Your task to perform on an android device: show emergency info Image 0: 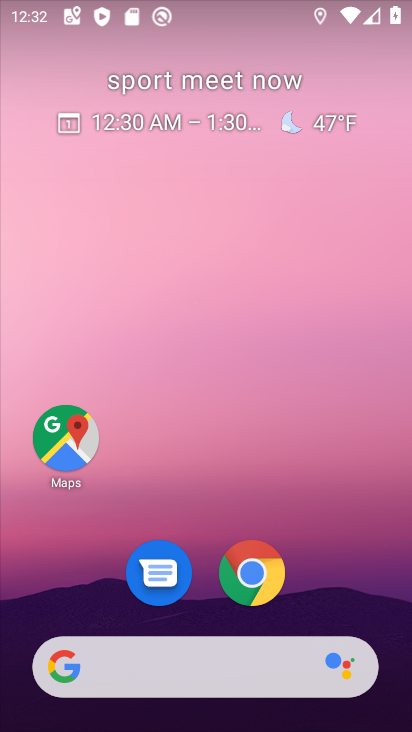
Step 0: click (168, 224)
Your task to perform on an android device: show emergency info Image 1: 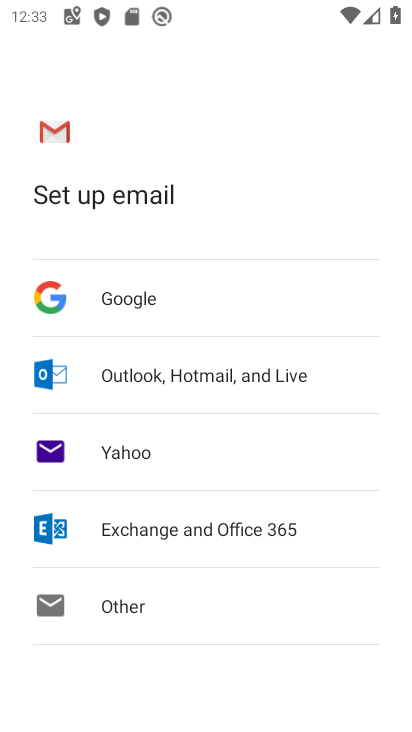
Step 1: drag from (215, 627) to (313, 88)
Your task to perform on an android device: show emergency info Image 2: 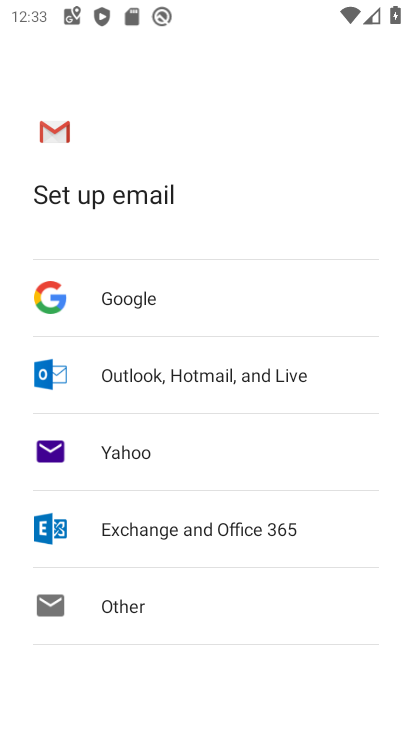
Step 2: press home button
Your task to perform on an android device: show emergency info Image 3: 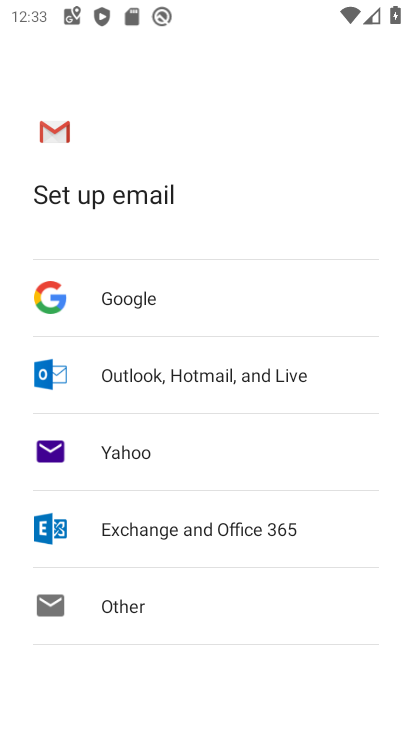
Step 3: press home button
Your task to perform on an android device: show emergency info Image 4: 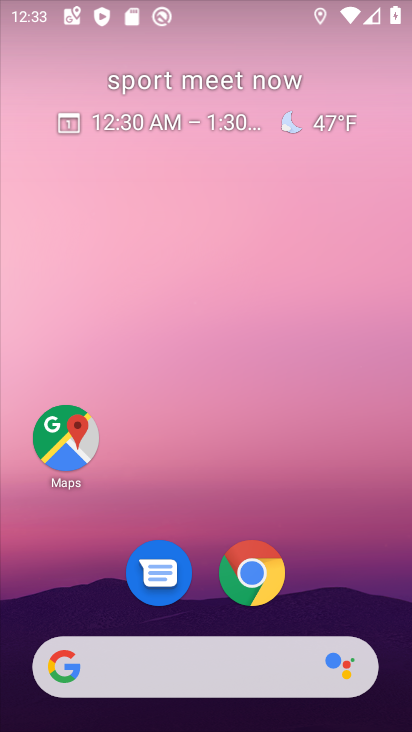
Step 4: drag from (165, 689) to (260, 94)
Your task to perform on an android device: show emergency info Image 5: 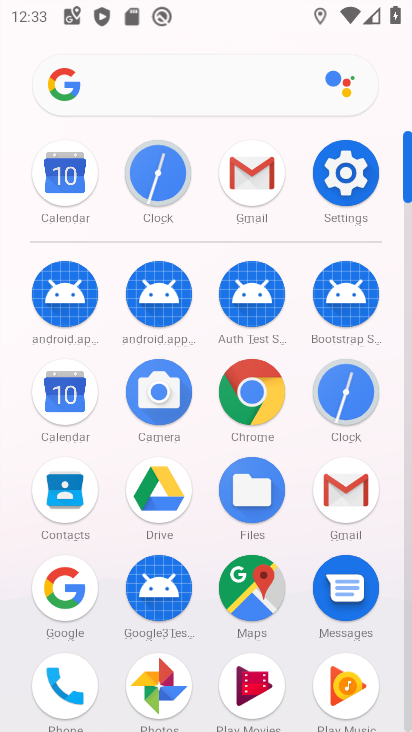
Step 5: click (335, 171)
Your task to perform on an android device: show emergency info Image 6: 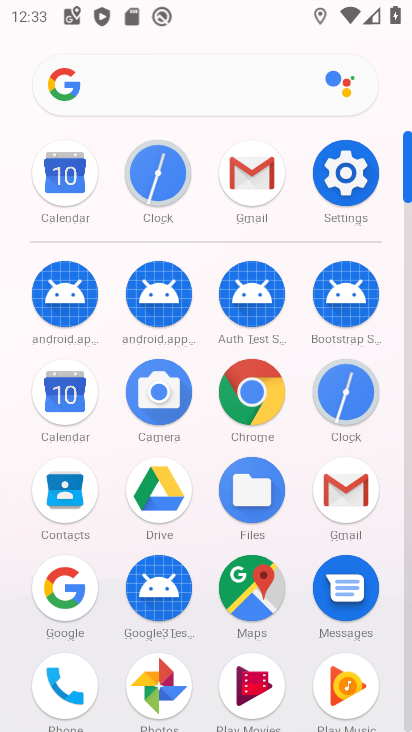
Step 6: click (335, 171)
Your task to perform on an android device: show emergency info Image 7: 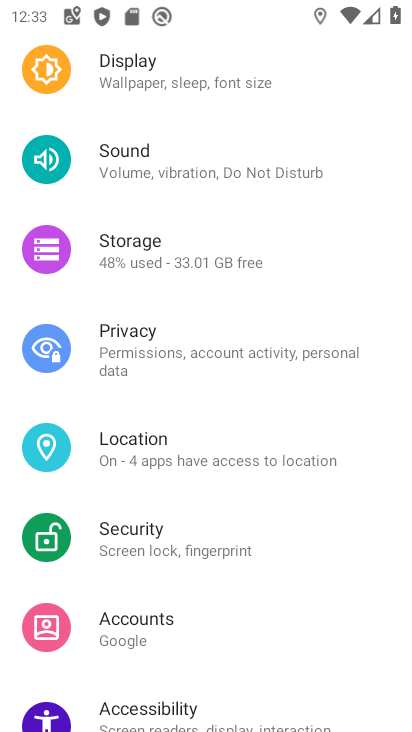
Step 7: drag from (223, 506) to (292, 96)
Your task to perform on an android device: show emergency info Image 8: 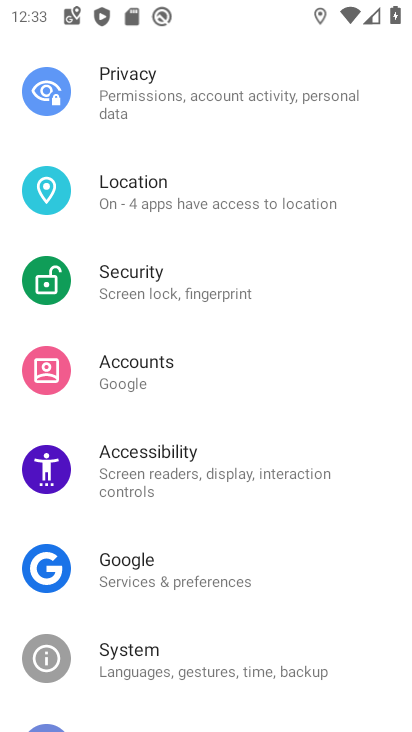
Step 8: drag from (166, 619) to (266, 108)
Your task to perform on an android device: show emergency info Image 9: 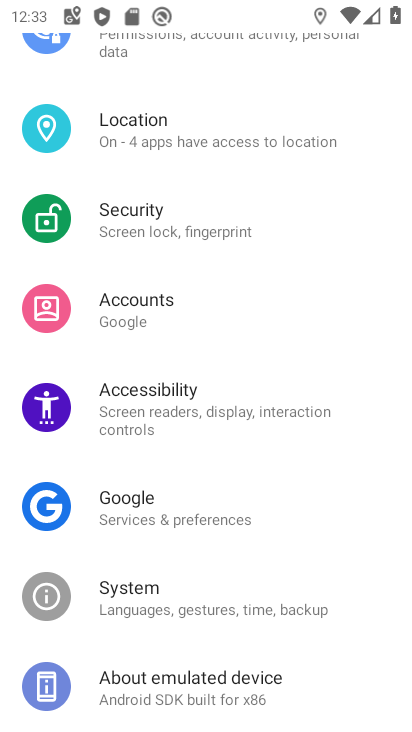
Step 9: click (165, 684)
Your task to perform on an android device: show emergency info Image 10: 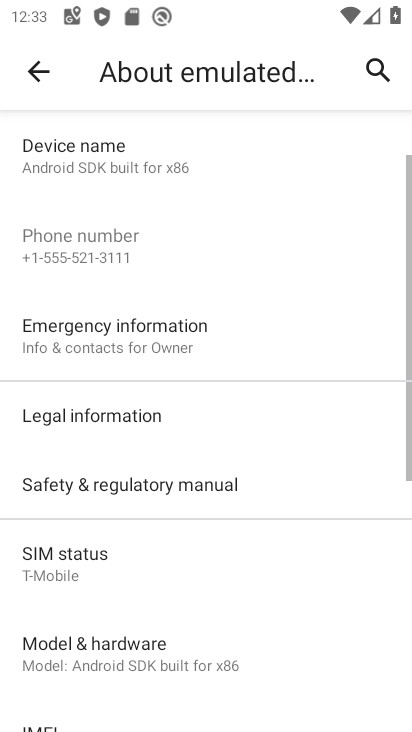
Step 10: drag from (165, 684) to (233, 155)
Your task to perform on an android device: show emergency info Image 11: 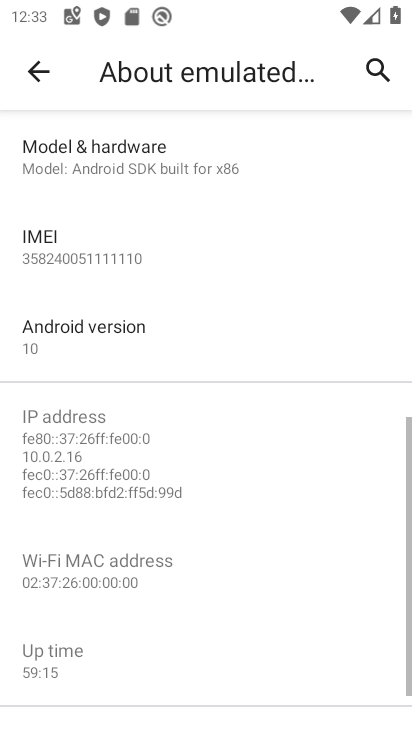
Step 11: drag from (216, 181) to (225, 634)
Your task to perform on an android device: show emergency info Image 12: 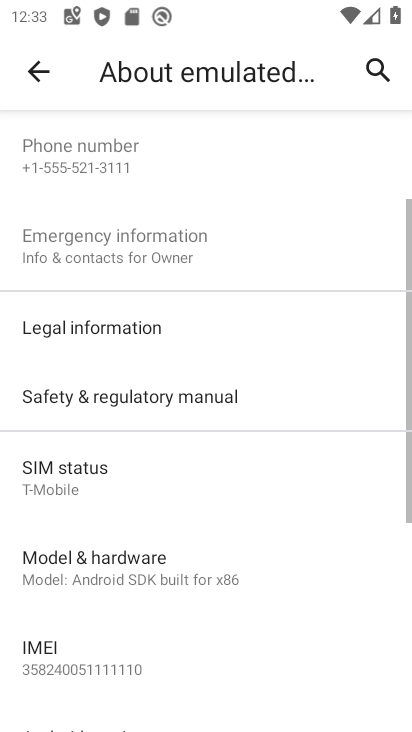
Step 12: click (172, 257)
Your task to perform on an android device: show emergency info Image 13: 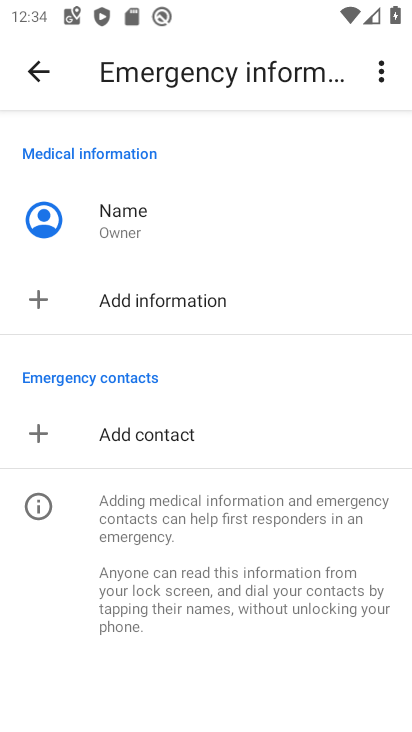
Step 13: task complete